Your task to perform on an android device: What's the weather? Image 0: 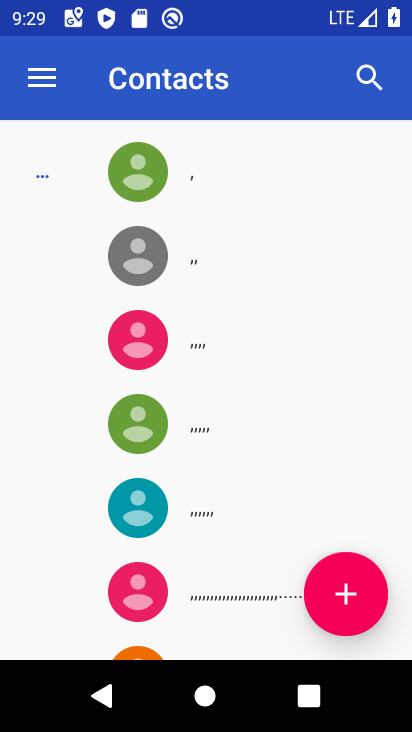
Step 0: press home button
Your task to perform on an android device: What's the weather? Image 1: 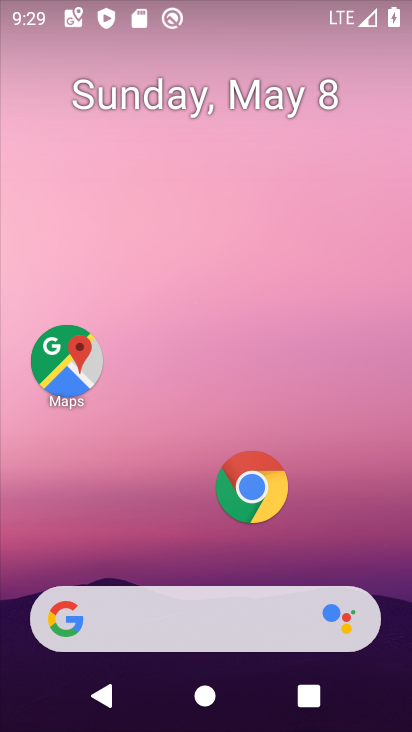
Step 1: click (68, 611)
Your task to perform on an android device: What's the weather? Image 2: 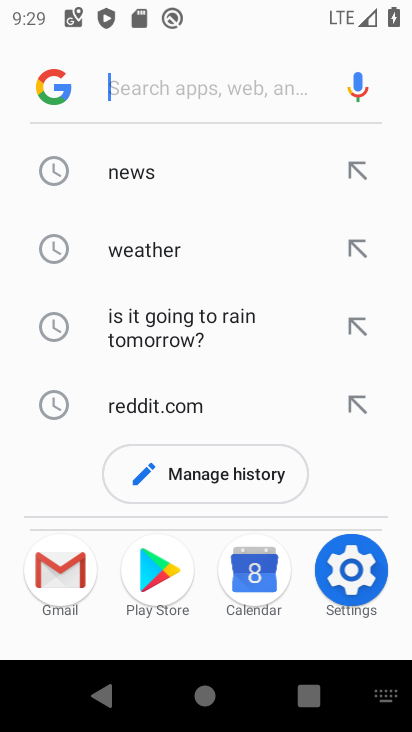
Step 2: click (47, 82)
Your task to perform on an android device: What's the weather? Image 3: 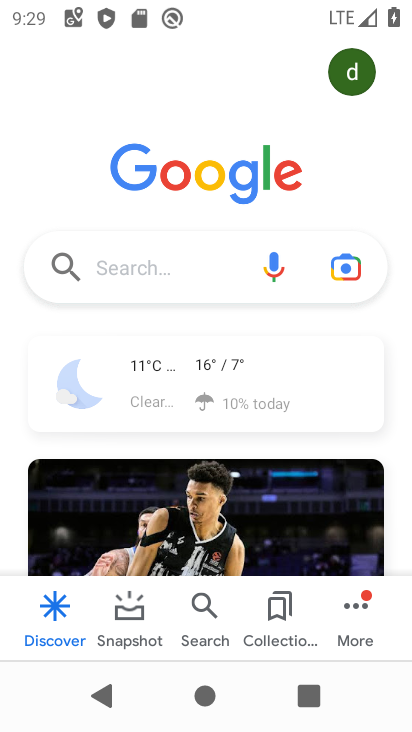
Step 3: click (142, 370)
Your task to perform on an android device: What's the weather? Image 4: 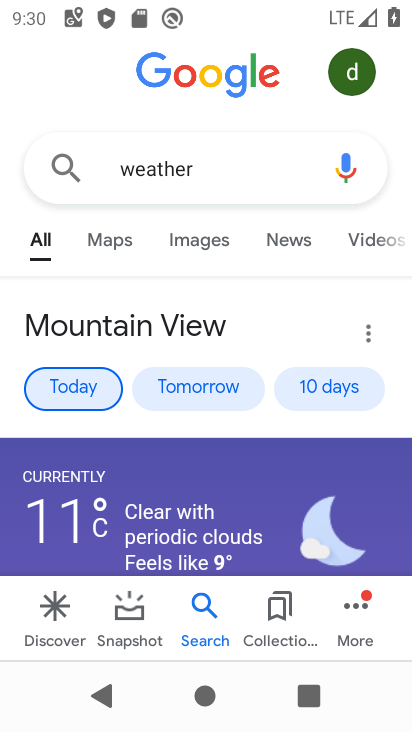
Step 4: task complete